Your task to perform on an android device: Show me productivity apps on the Play Store Image 0: 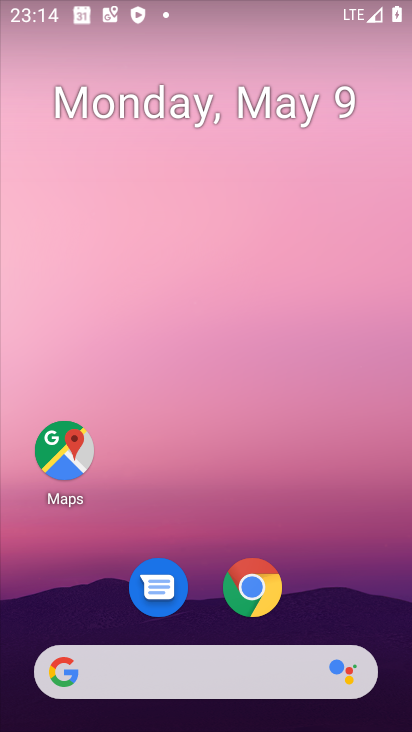
Step 0: drag from (209, 612) to (217, 422)
Your task to perform on an android device: Show me productivity apps on the Play Store Image 1: 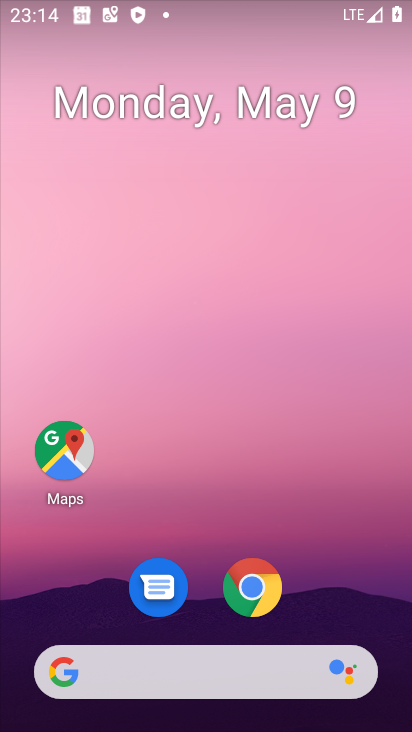
Step 1: drag from (199, 601) to (339, 2)
Your task to perform on an android device: Show me productivity apps on the Play Store Image 2: 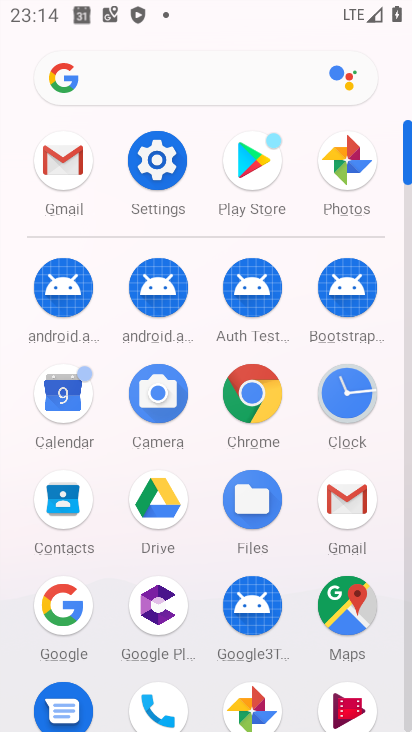
Step 2: drag from (194, 667) to (279, 239)
Your task to perform on an android device: Show me productivity apps on the Play Store Image 3: 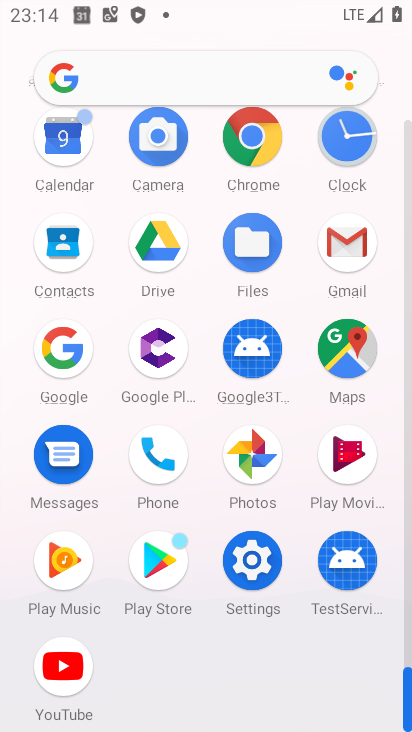
Step 3: click (154, 587)
Your task to perform on an android device: Show me productivity apps on the Play Store Image 4: 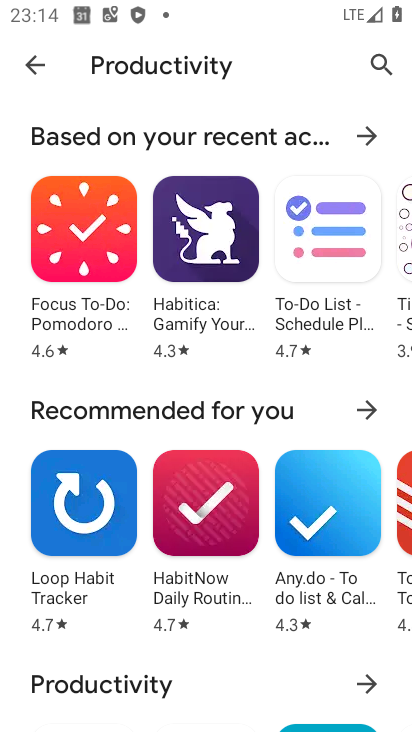
Step 4: task complete